Your task to perform on an android device: toggle location history Image 0: 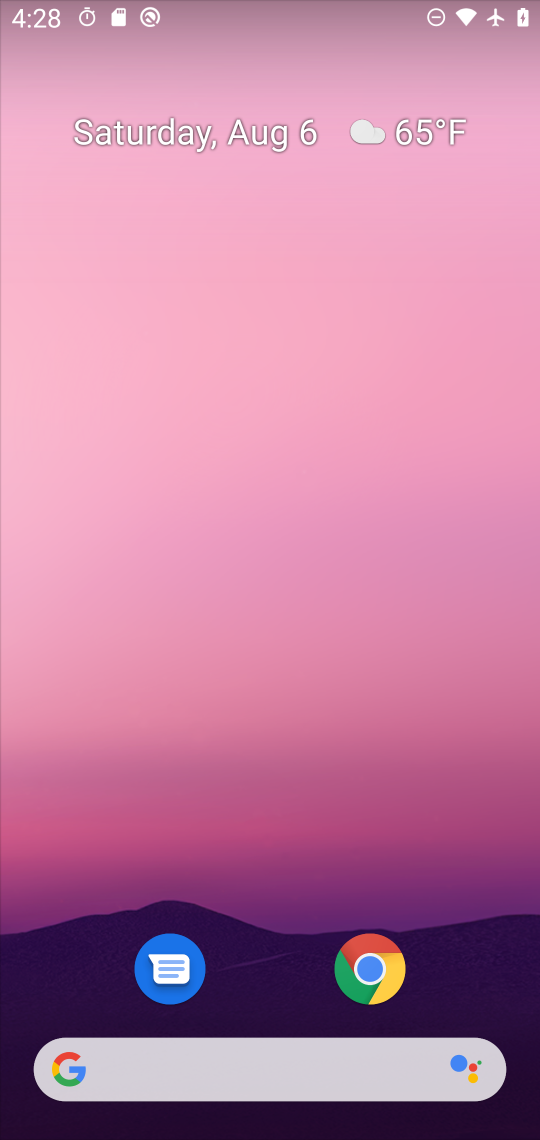
Step 0: press home button
Your task to perform on an android device: toggle location history Image 1: 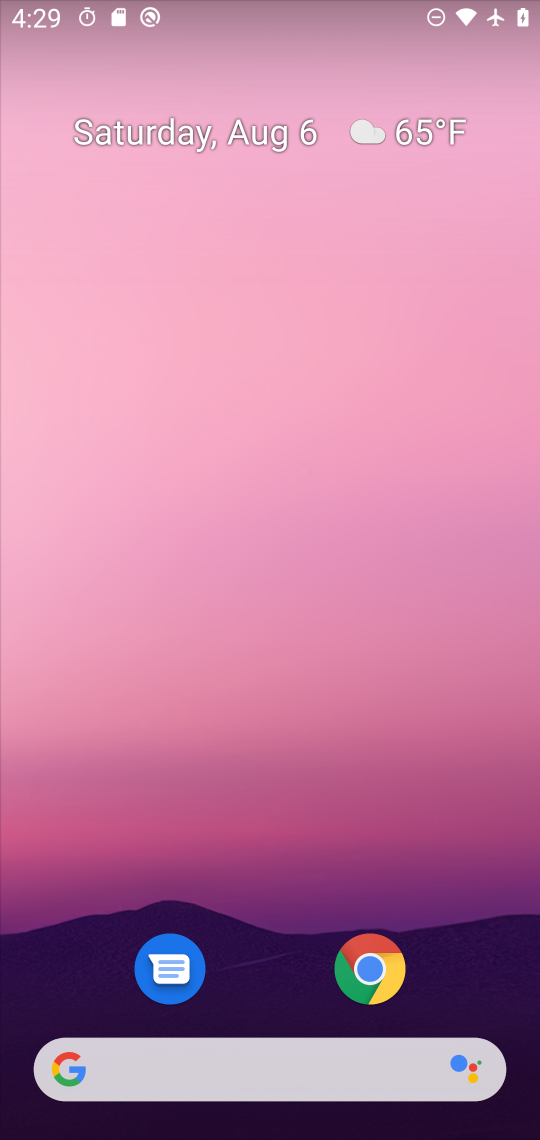
Step 1: drag from (295, 970) to (279, 31)
Your task to perform on an android device: toggle location history Image 2: 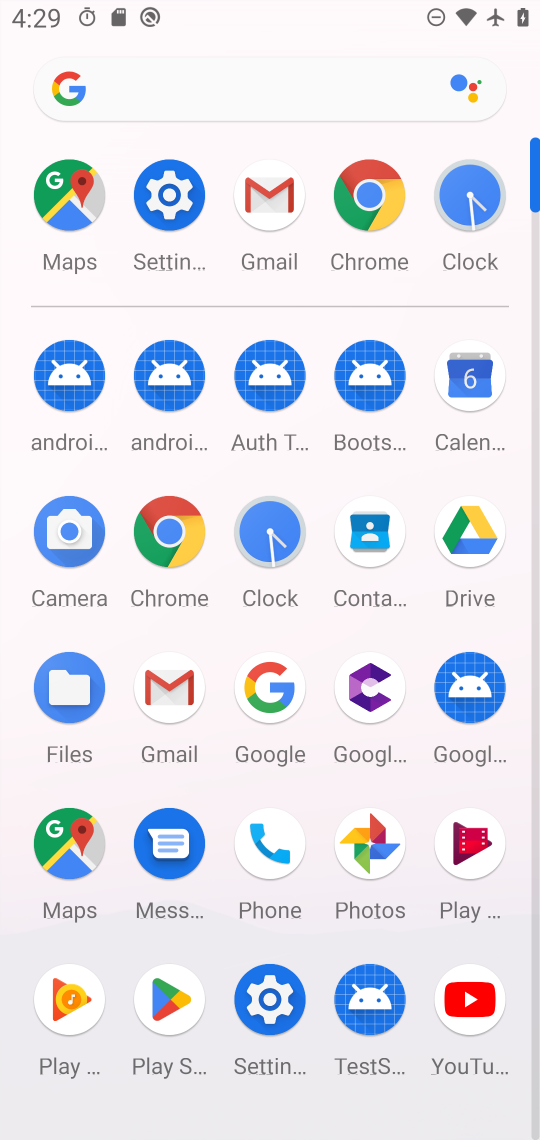
Step 2: click (150, 191)
Your task to perform on an android device: toggle location history Image 3: 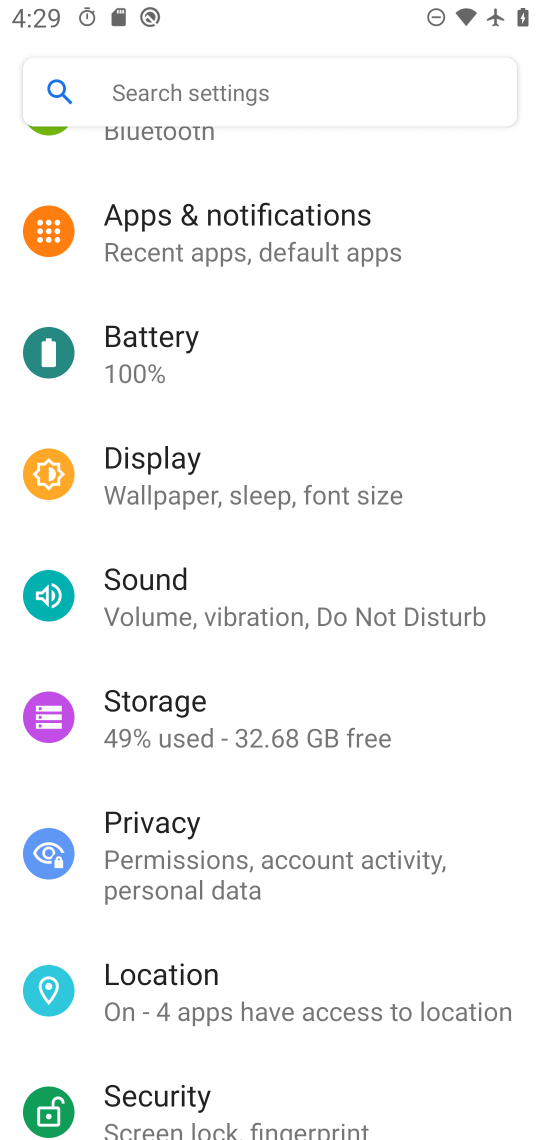
Step 3: click (167, 996)
Your task to perform on an android device: toggle location history Image 4: 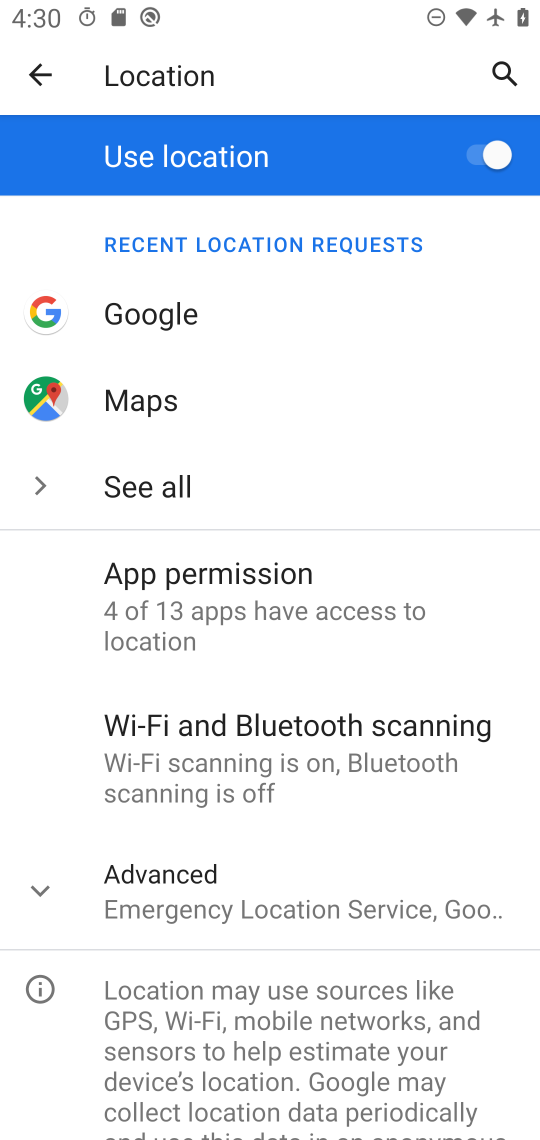
Step 4: click (36, 891)
Your task to perform on an android device: toggle location history Image 5: 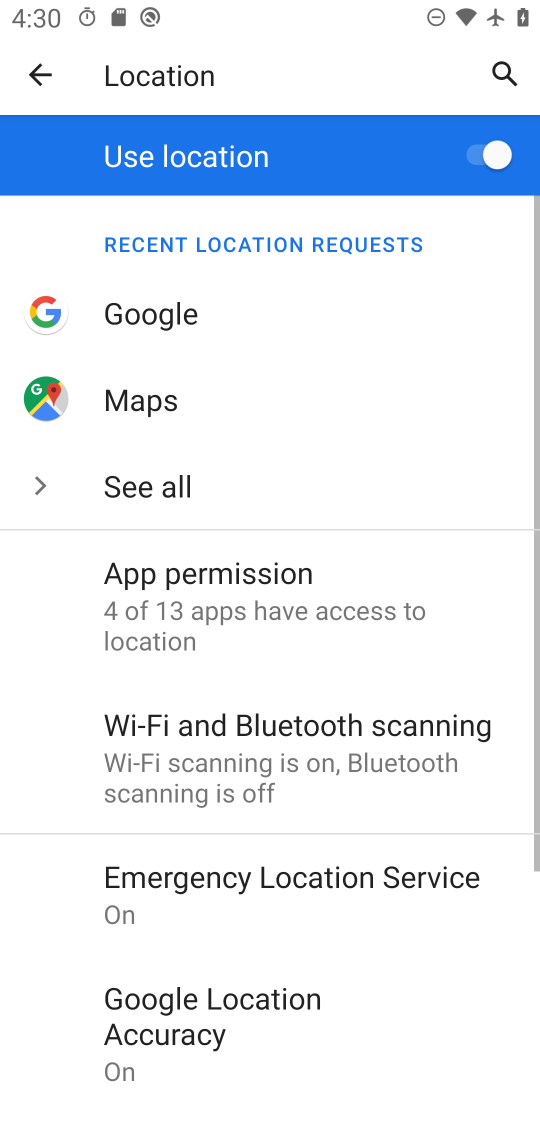
Step 5: drag from (344, 933) to (477, 305)
Your task to perform on an android device: toggle location history Image 6: 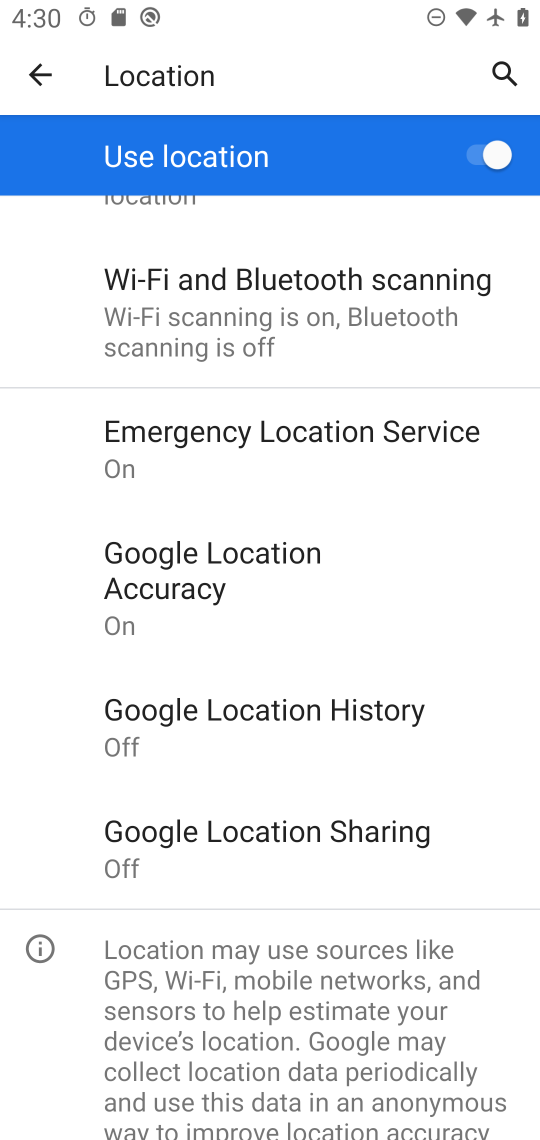
Step 6: click (329, 713)
Your task to perform on an android device: toggle location history Image 7: 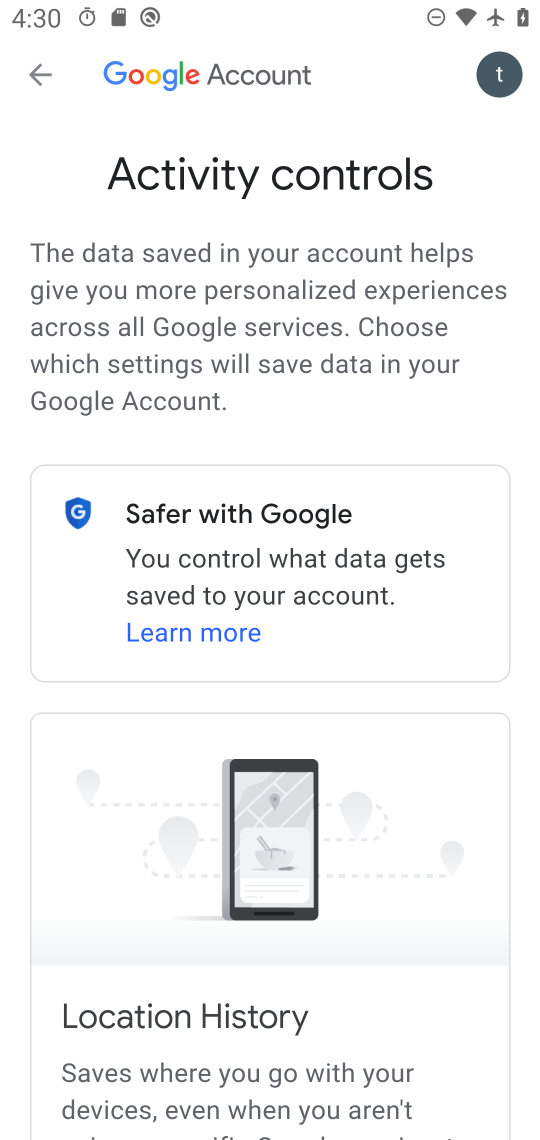
Step 7: drag from (487, 1042) to (438, 361)
Your task to perform on an android device: toggle location history Image 8: 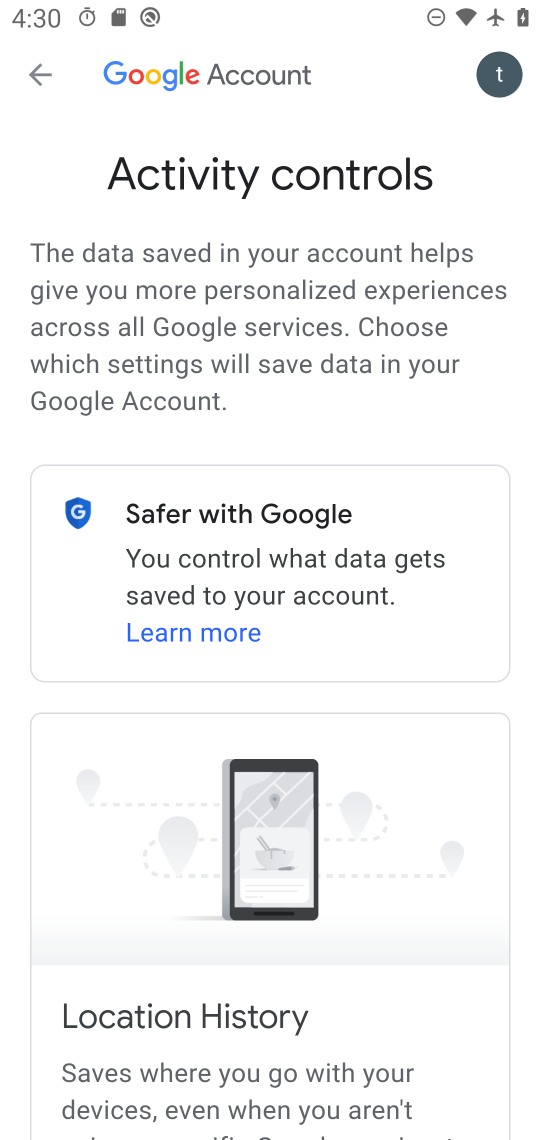
Step 8: drag from (452, 1051) to (470, 407)
Your task to perform on an android device: toggle location history Image 9: 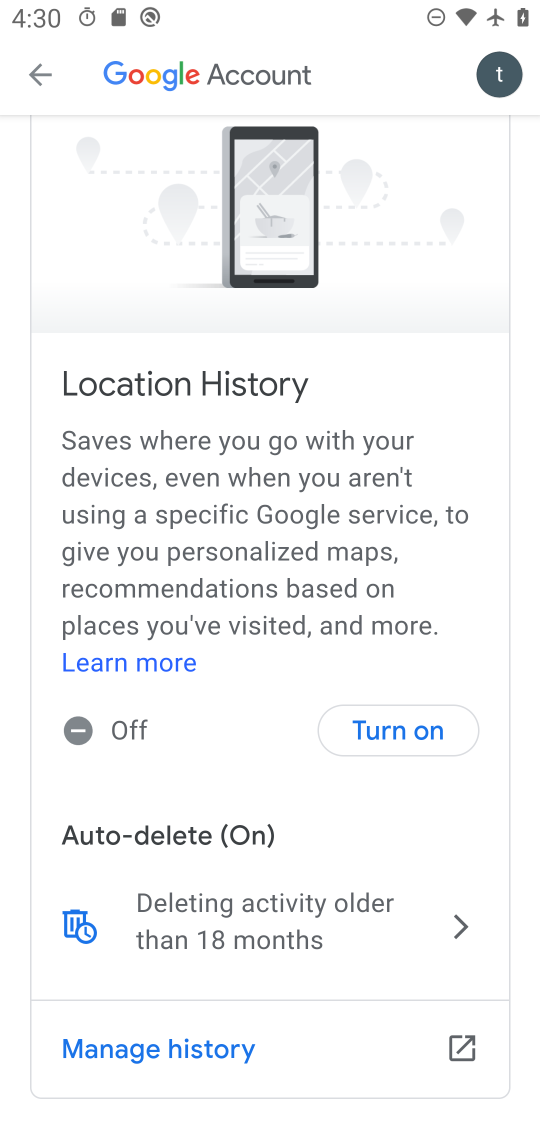
Step 9: click (443, 744)
Your task to perform on an android device: toggle location history Image 10: 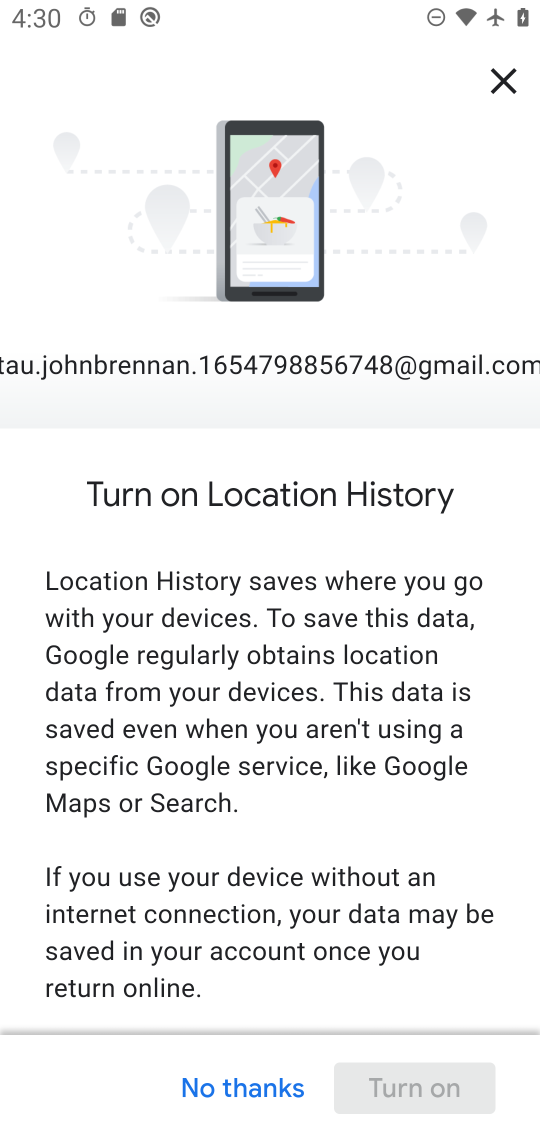
Step 10: drag from (451, 983) to (433, 217)
Your task to perform on an android device: toggle location history Image 11: 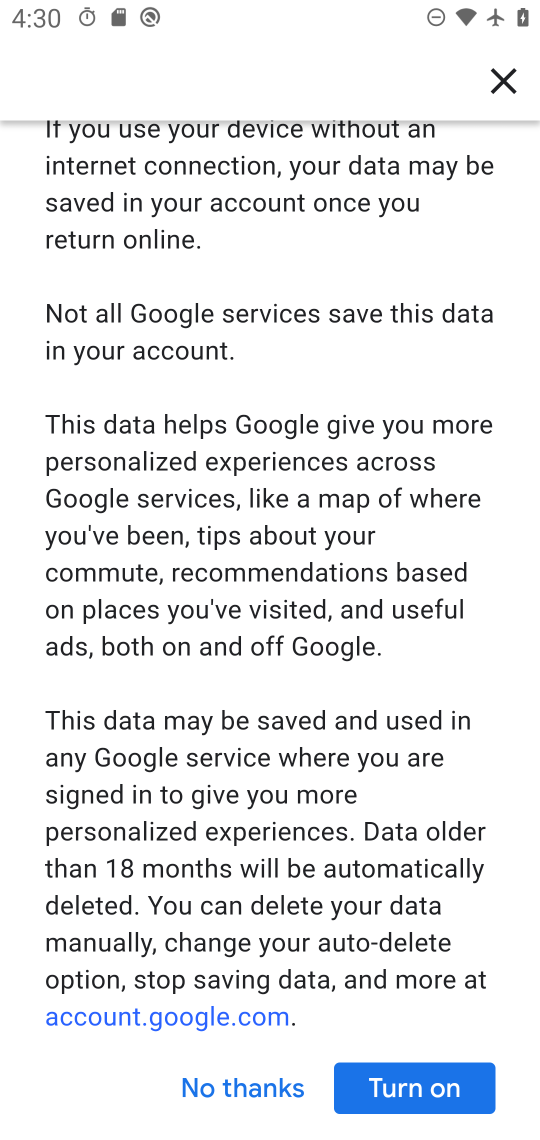
Step 11: click (442, 1080)
Your task to perform on an android device: toggle location history Image 12: 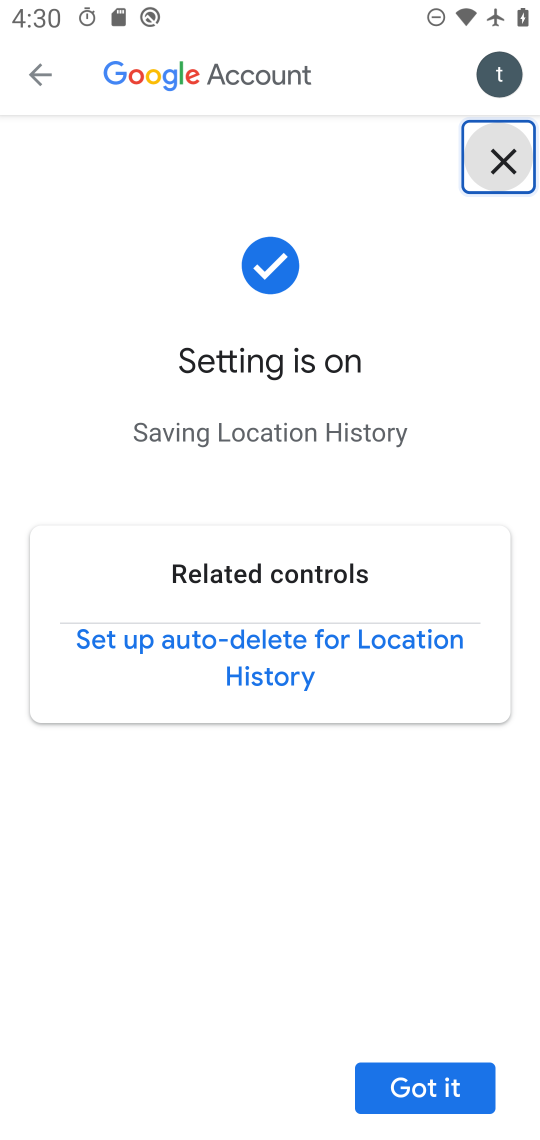
Step 12: click (437, 1097)
Your task to perform on an android device: toggle location history Image 13: 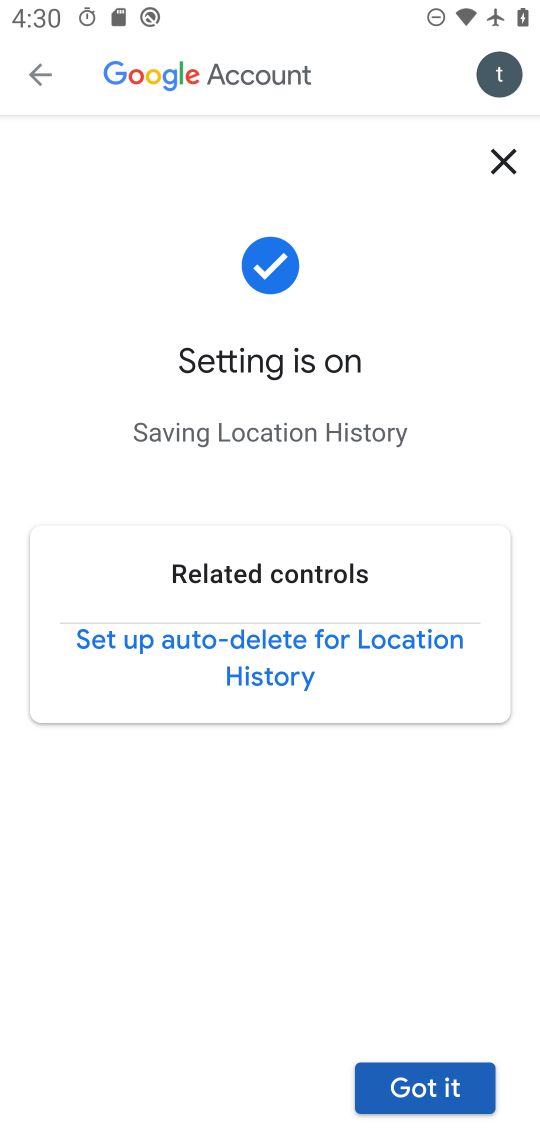
Step 13: click (401, 1081)
Your task to perform on an android device: toggle location history Image 14: 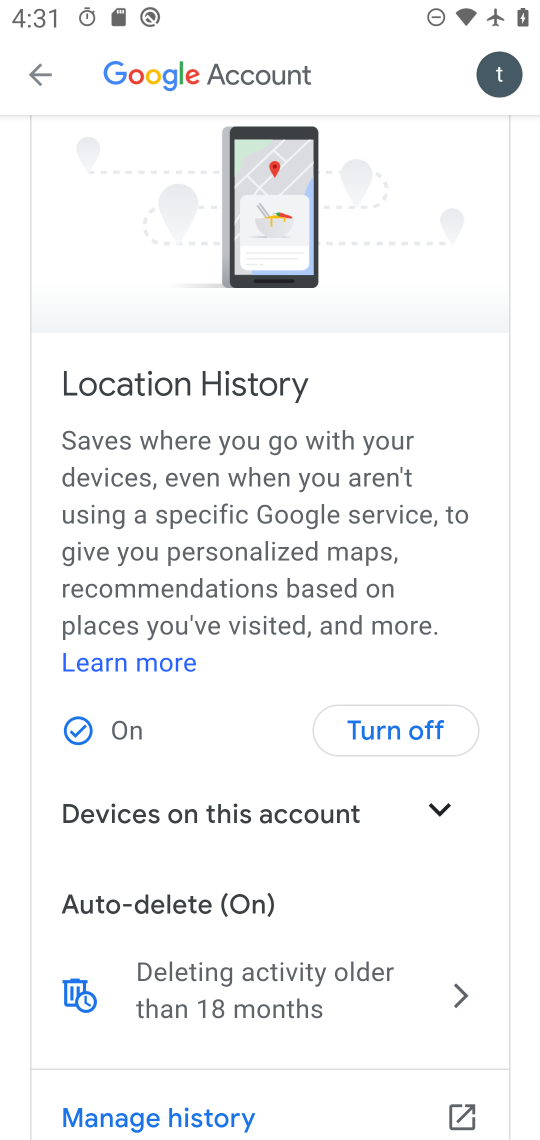
Step 14: task complete